Your task to perform on an android device: change the clock display to show seconds Image 0: 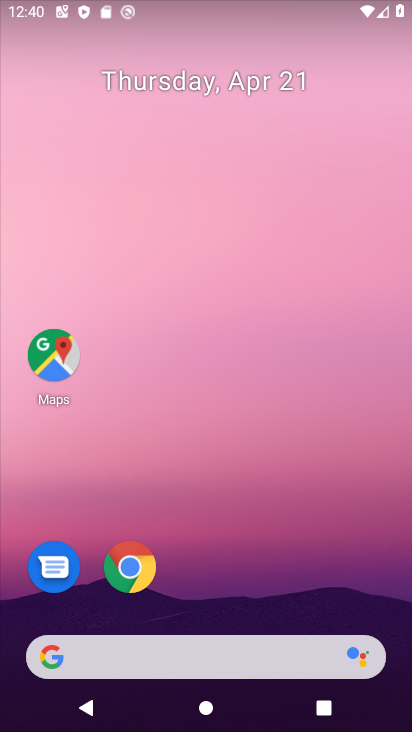
Step 0: drag from (241, 544) to (260, 57)
Your task to perform on an android device: change the clock display to show seconds Image 1: 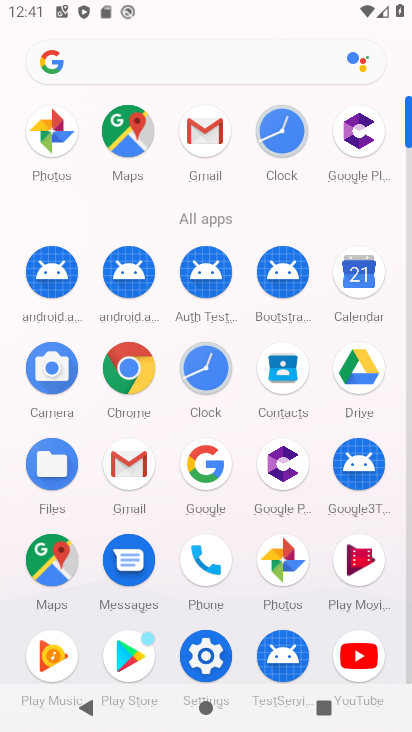
Step 1: click (203, 654)
Your task to perform on an android device: change the clock display to show seconds Image 2: 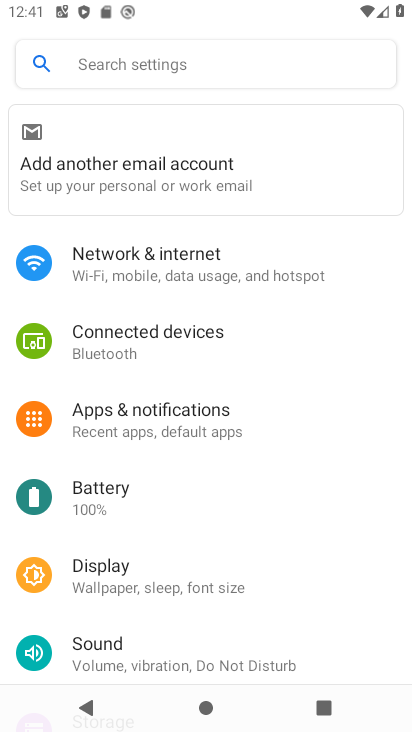
Step 2: press home button
Your task to perform on an android device: change the clock display to show seconds Image 3: 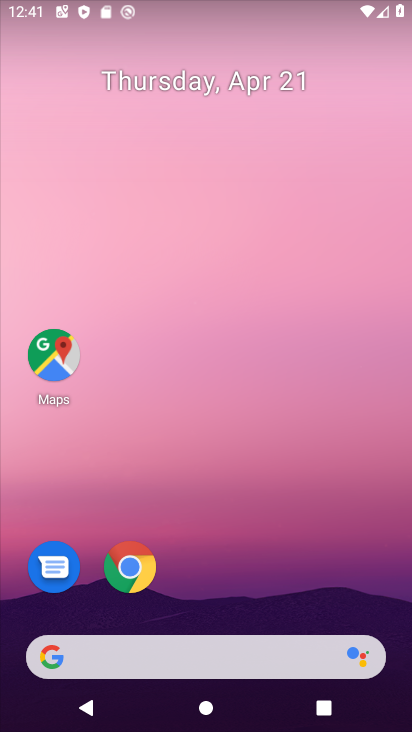
Step 3: drag from (350, 574) to (323, 48)
Your task to perform on an android device: change the clock display to show seconds Image 4: 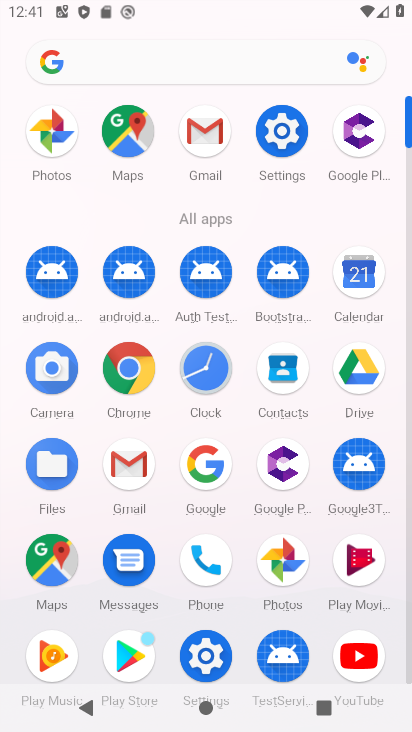
Step 4: click (198, 362)
Your task to perform on an android device: change the clock display to show seconds Image 5: 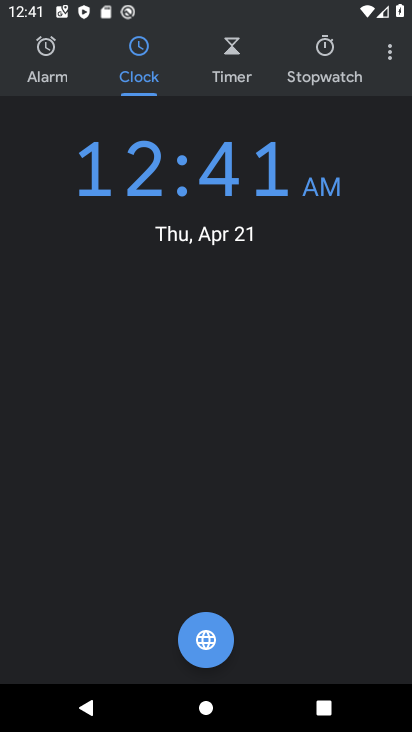
Step 5: click (392, 52)
Your task to perform on an android device: change the clock display to show seconds Image 6: 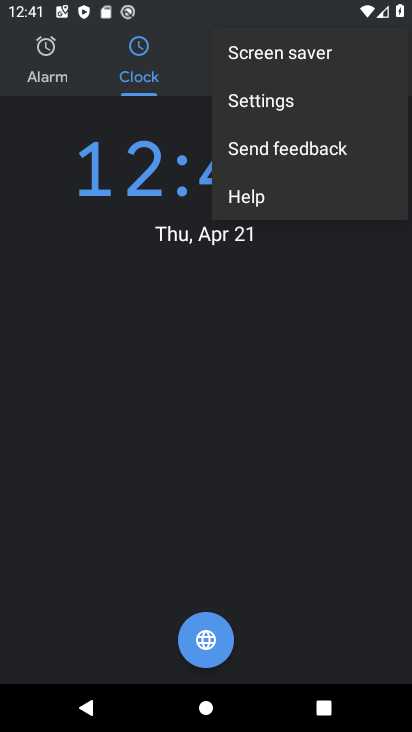
Step 6: click (272, 116)
Your task to perform on an android device: change the clock display to show seconds Image 7: 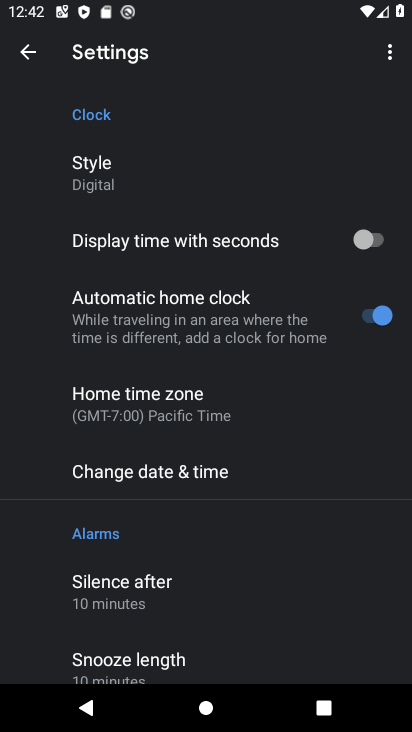
Step 7: click (171, 247)
Your task to perform on an android device: change the clock display to show seconds Image 8: 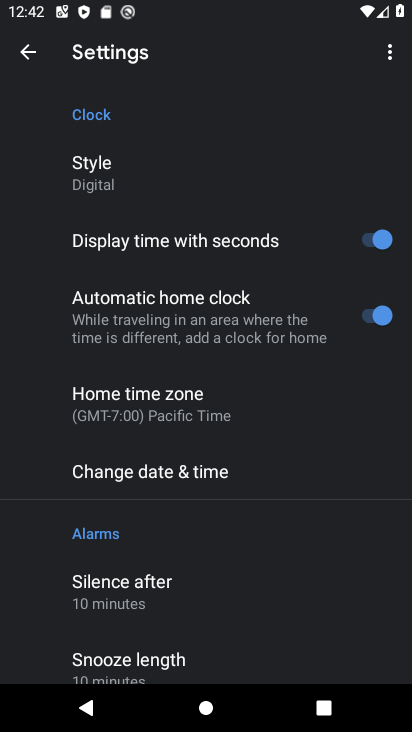
Step 8: task complete